Your task to perform on an android device: change the clock display to analog Image 0: 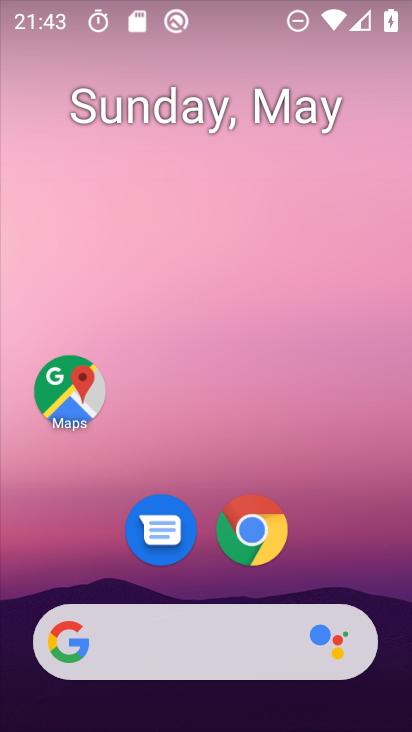
Step 0: drag from (228, 684) to (263, 151)
Your task to perform on an android device: change the clock display to analog Image 1: 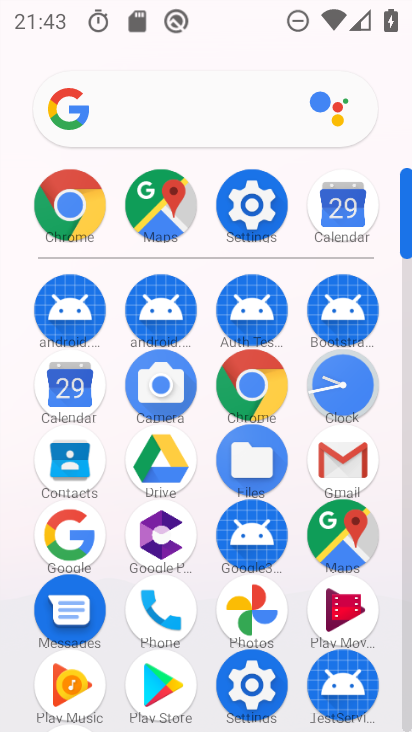
Step 1: click (346, 385)
Your task to perform on an android device: change the clock display to analog Image 2: 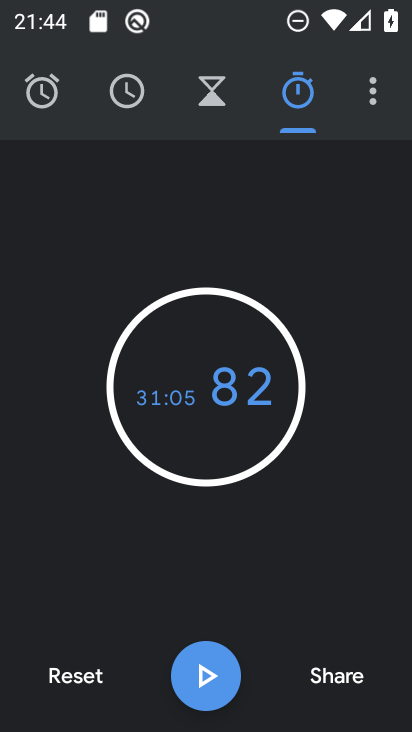
Step 2: click (385, 93)
Your task to perform on an android device: change the clock display to analog Image 3: 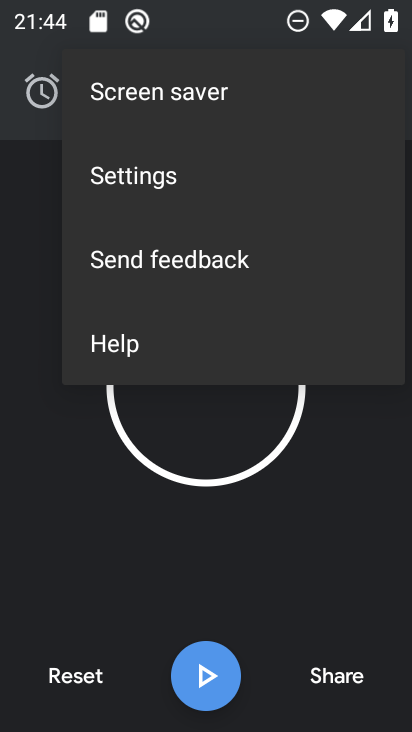
Step 3: click (210, 164)
Your task to perform on an android device: change the clock display to analog Image 4: 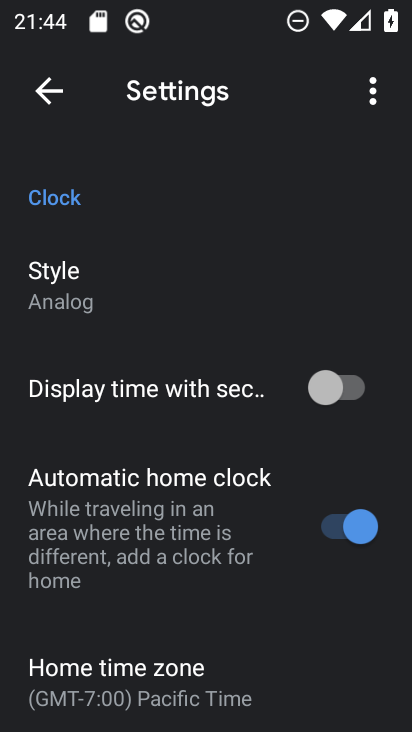
Step 4: click (153, 283)
Your task to perform on an android device: change the clock display to analog Image 5: 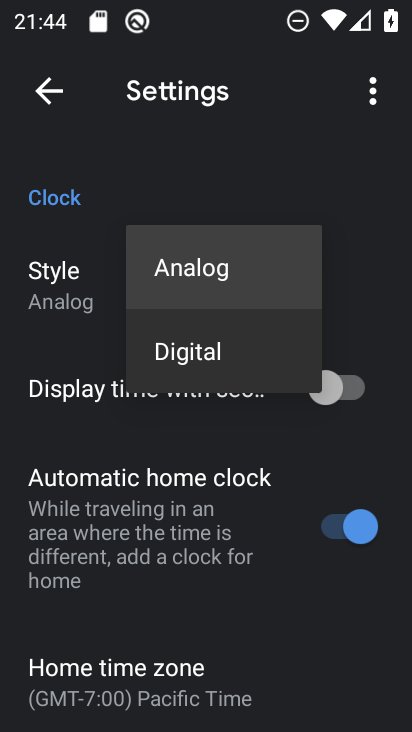
Step 5: click (163, 274)
Your task to perform on an android device: change the clock display to analog Image 6: 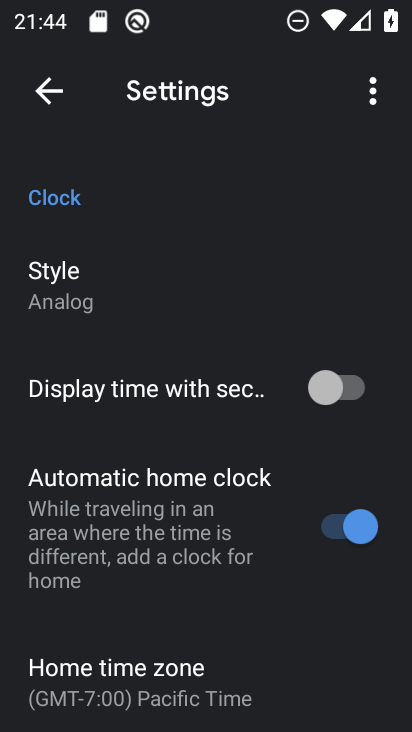
Step 6: task complete